Your task to perform on an android device: turn on javascript in the chrome app Image 0: 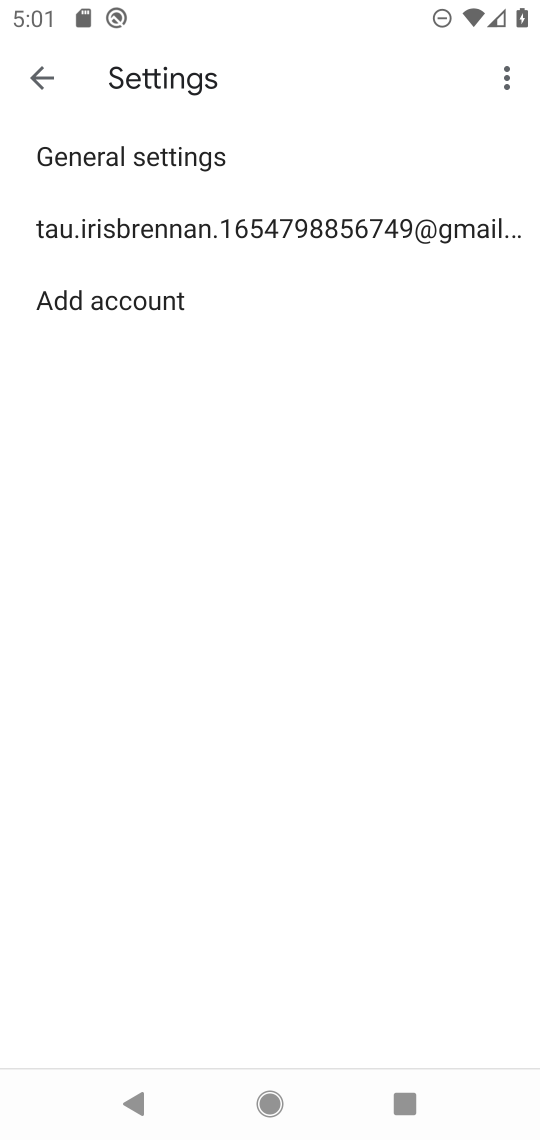
Step 0: press home button
Your task to perform on an android device: turn on javascript in the chrome app Image 1: 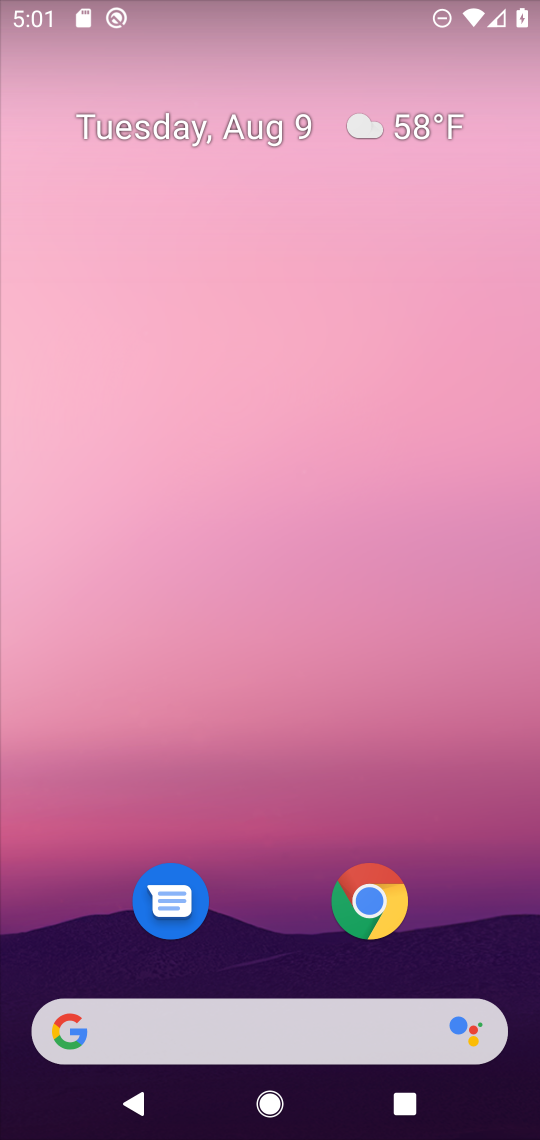
Step 1: drag from (278, 778) to (293, 76)
Your task to perform on an android device: turn on javascript in the chrome app Image 2: 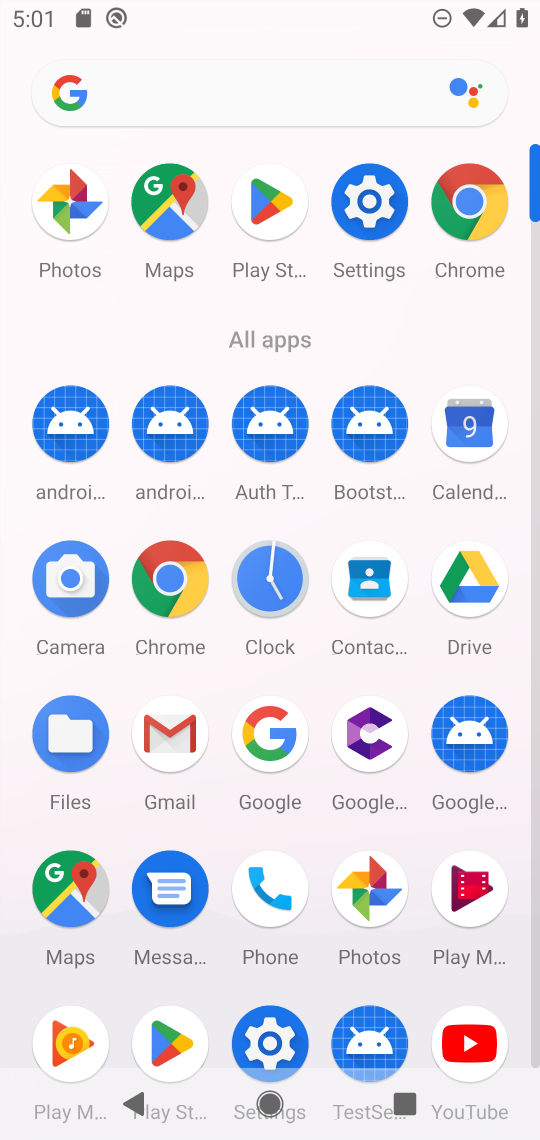
Step 2: click (160, 594)
Your task to perform on an android device: turn on javascript in the chrome app Image 3: 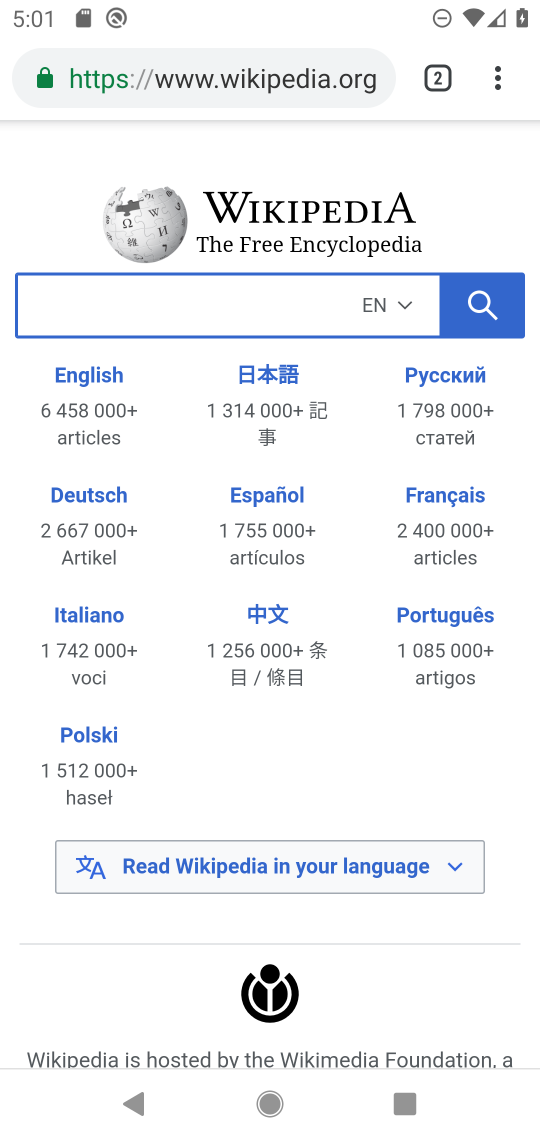
Step 3: click (494, 65)
Your task to perform on an android device: turn on javascript in the chrome app Image 4: 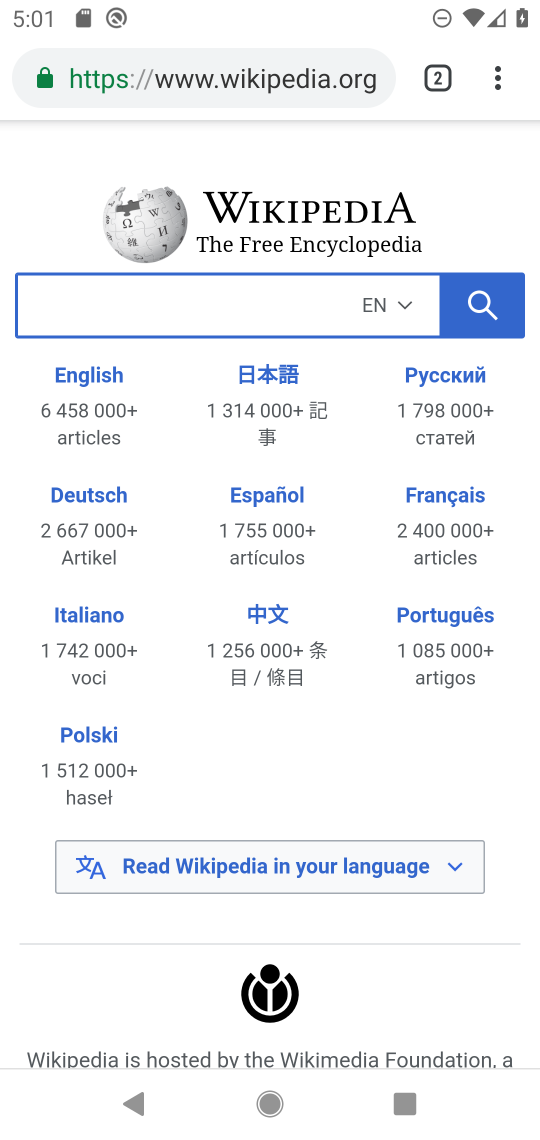
Step 4: drag from (494, 65) to (536, 109)
Your task to perform on an android device: turn on javascript in the chrome app Image 5: 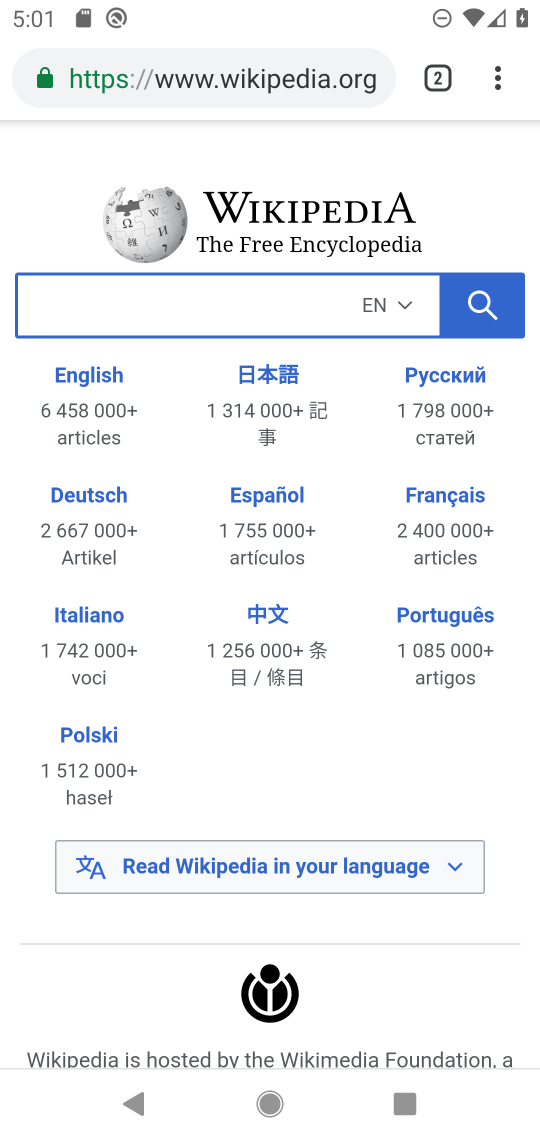
Step 5: drag from (504, 88) to (283, 887)
Your task to perform on an android device: turn on javascript in the chrome app Image 6: 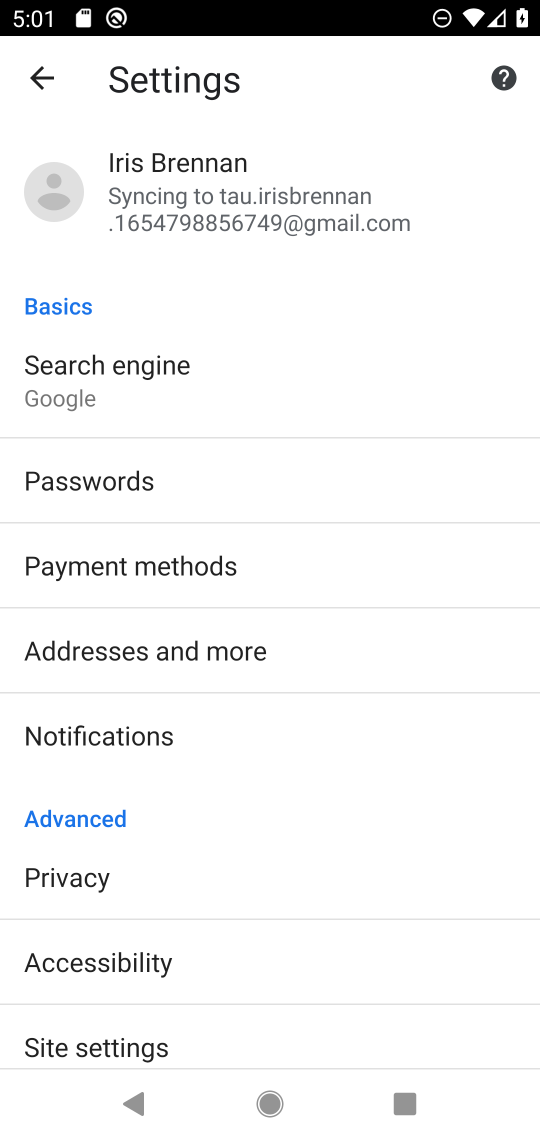
Step 6: drag from (267, 823) to (275, 507)
Your task to perform on an android device: turn on javascript in the chrome app Image 7: 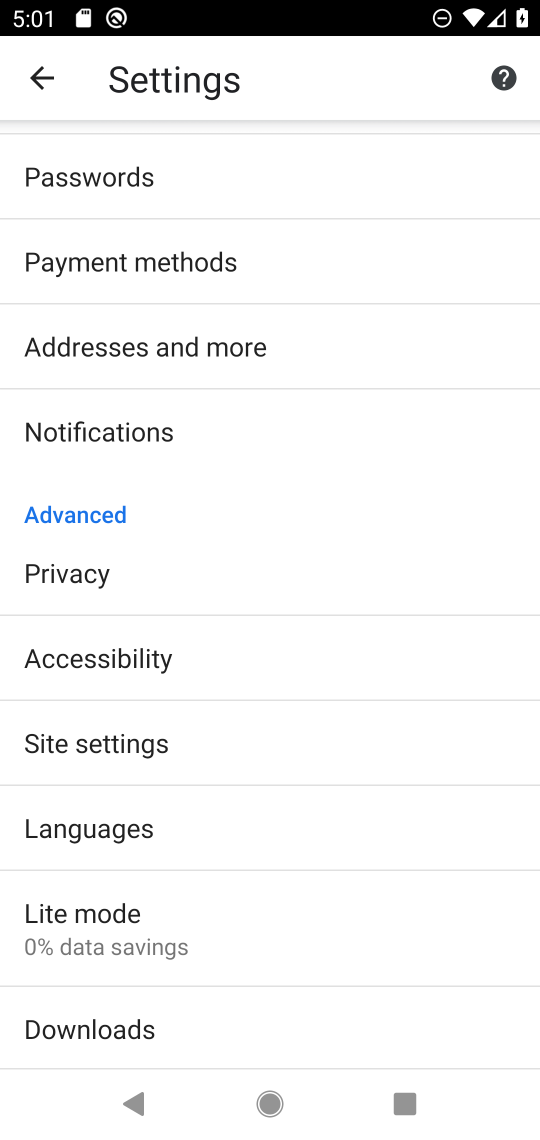
Step 7: click (113, 725)
Your task to perform on an android device: turn on javascript in the chrome app Image 8: 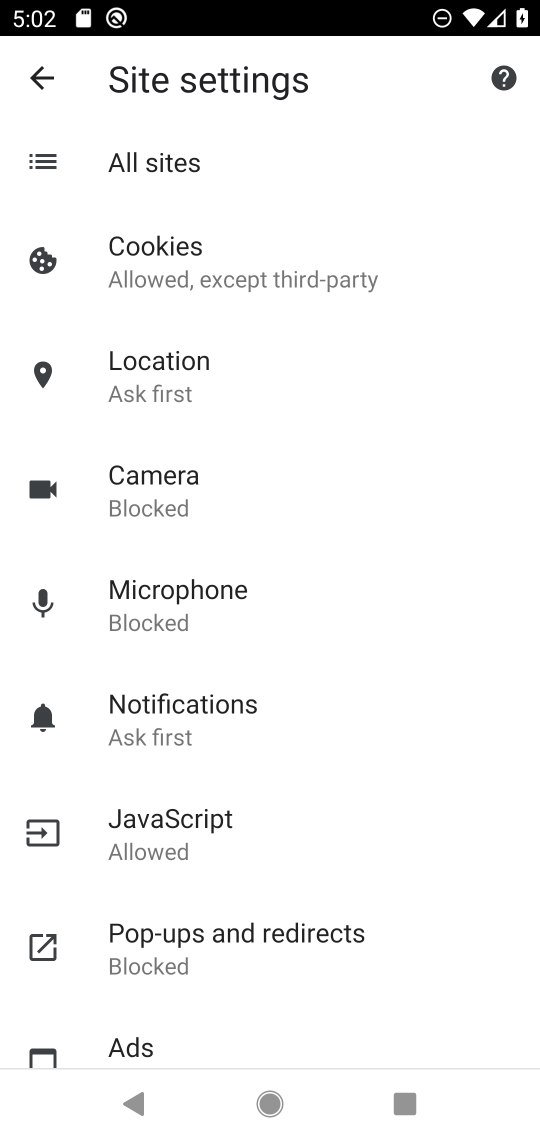
Step 8: click (215, 836)
Your task to perform on an android device: turn on javascript in the chrome app Image 9: 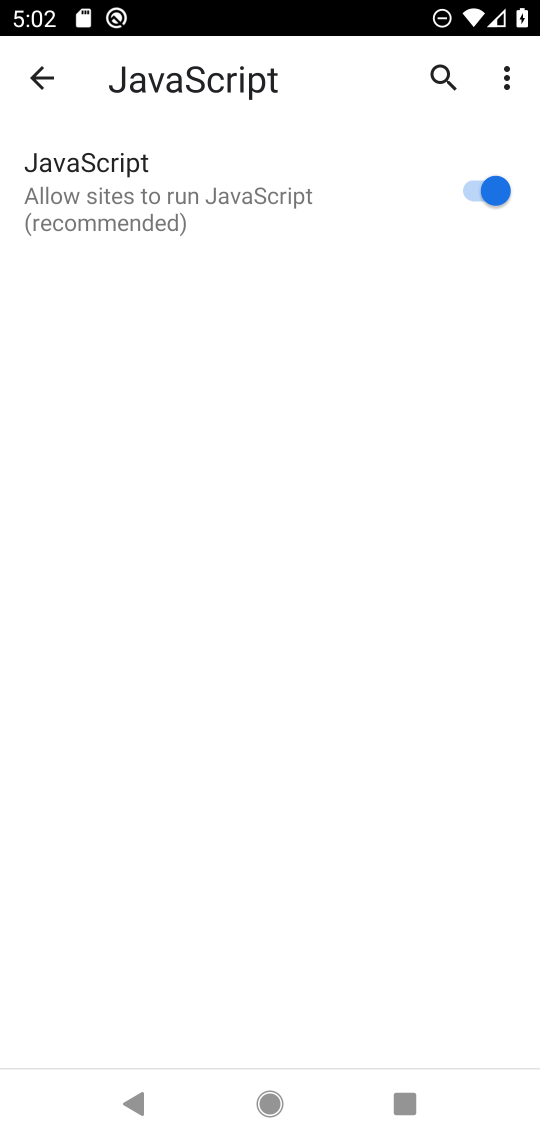
Step 9: task complete